Your task to perform on an android device: toggle data saver in the chrome app Image 0: 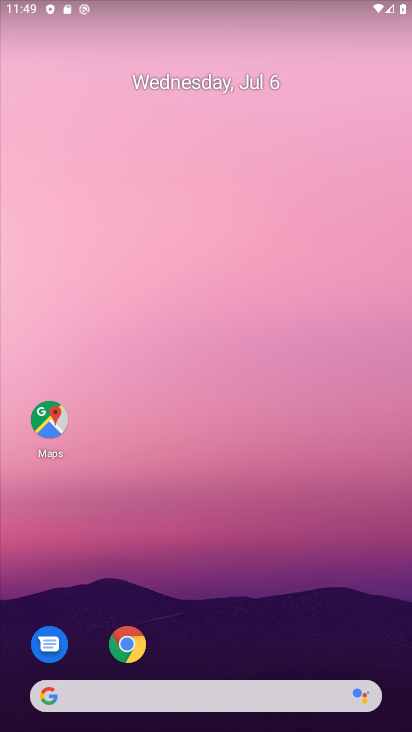
Step 0: drag from (191, 657) to (253, 164)
Your task to perform on an android device: toggle data saver in the chrome app Image 1: 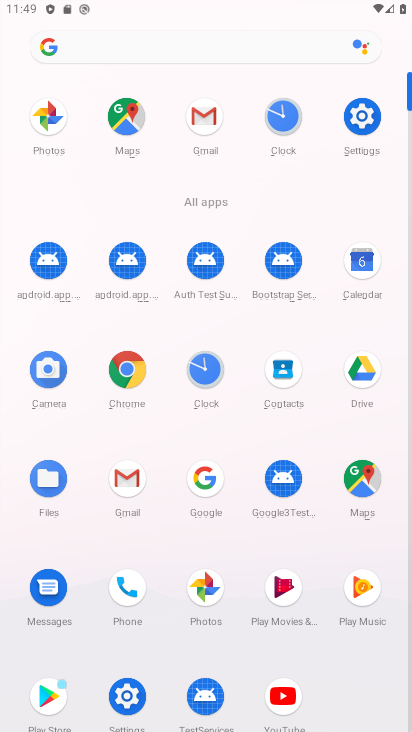
Step 1: click (123, 371)
Your task to perform on an android device: toggle data saver in the chrome app Image 2: 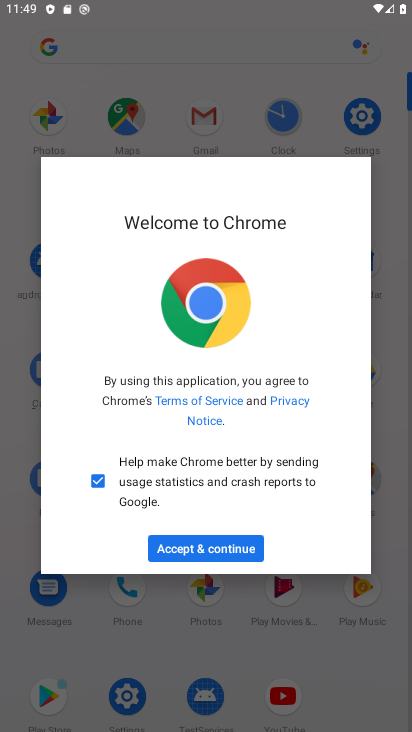
Step 2: click (231, 553)
Your task to perform on an android device: toggle data saver in the chrome app Image 3: 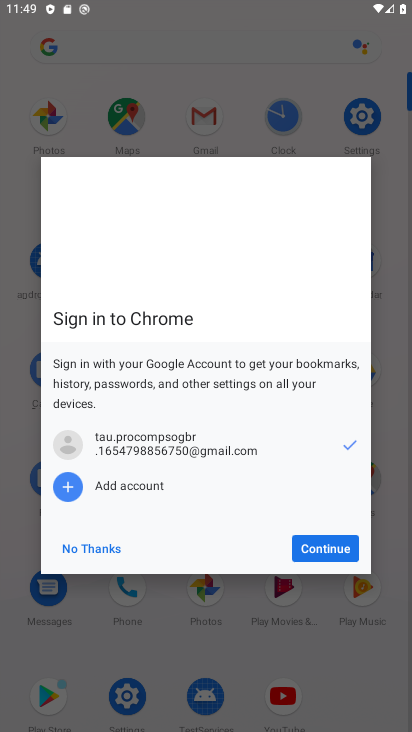
Step 3: click (311, 549)
Your task to perform on an android device: toggle data saver in the chrome app Image 4: 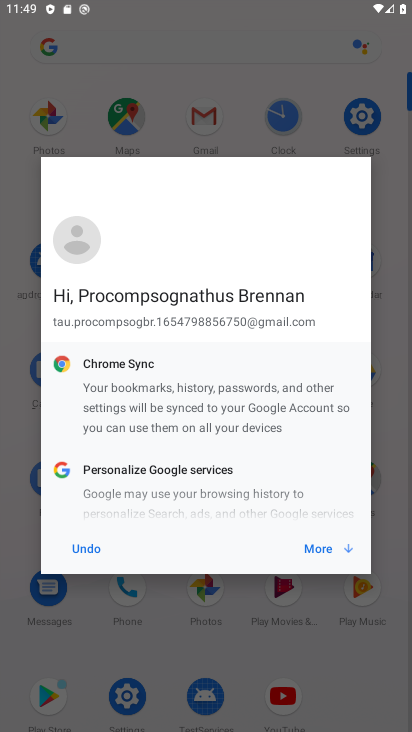
Step 4: click (311, 549)
Your task to perform on an android device: toggle data saver in the chrome app Image 5: 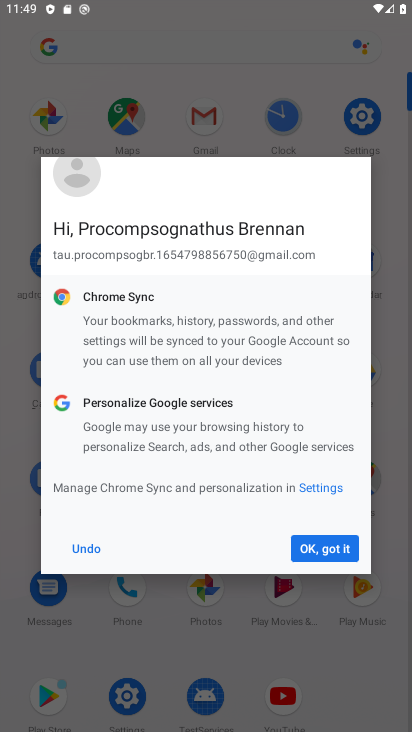
Step 5: click (311, 549)
Your task to perform on an android device: toggle data saver in the chrome app Image 6: 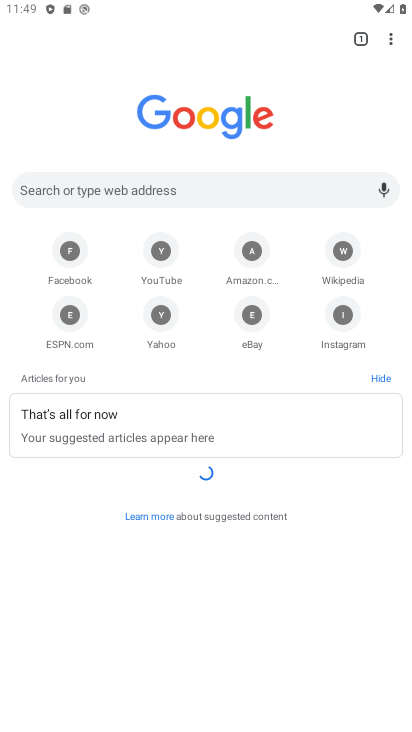
Step 6: click (387, 40)
Your task to perform on an android device: toggle data saver in the chrome app Image 7: 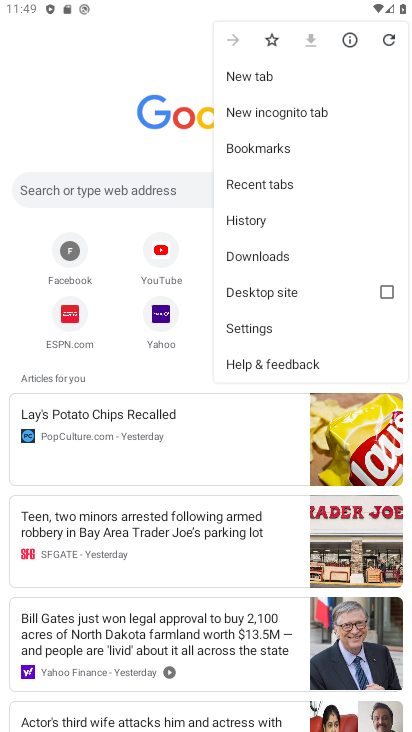
Step 7: click (259, 327)
Your task to perform on an android device: toggle data saver in the chrome app Image 8: 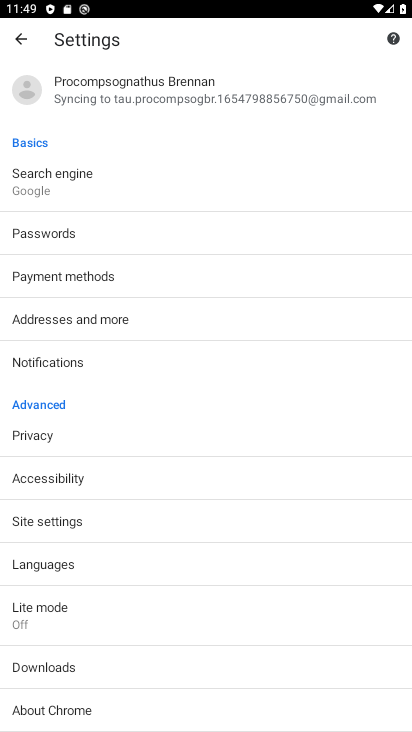
Step 8: click (82, 623)
Your task to perform on an android device: toggle data saver in the chrome app Image 9: 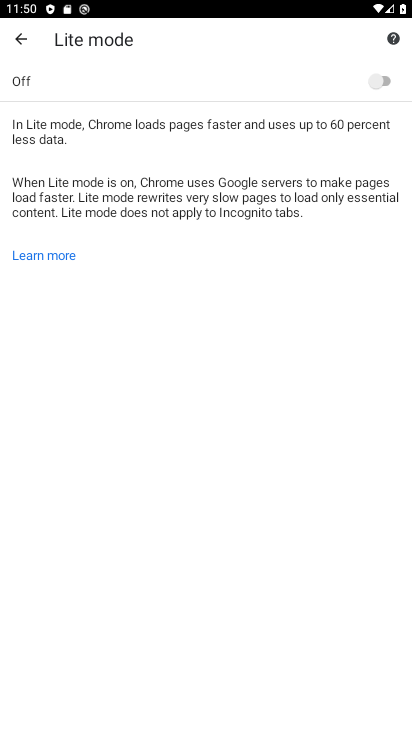
Step 9: click (371, 81)
Your task to perform on an android device: toggle data saver in the chrome app Image 10: 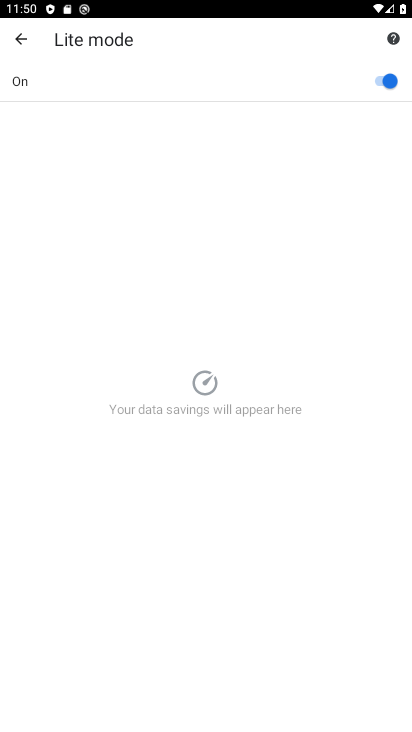
Step 10: task complete